Your task to perform on an android device: check the backup settings in the google photos Image 0: 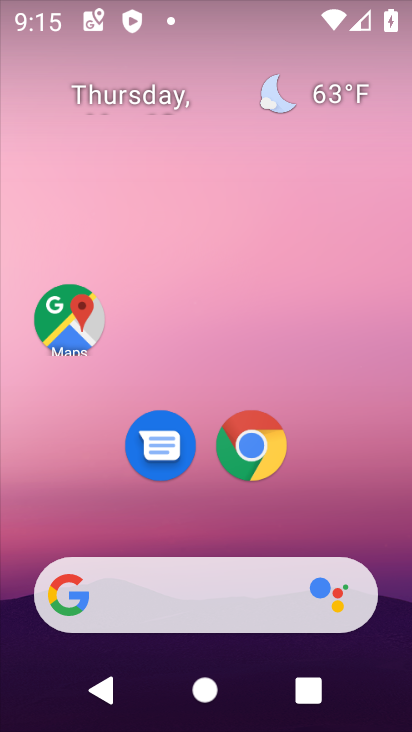
Step 0: drag from (202, 527) to (240, 183)
Your task to perform on an android device: check the backup settings in the google photos Image 1: 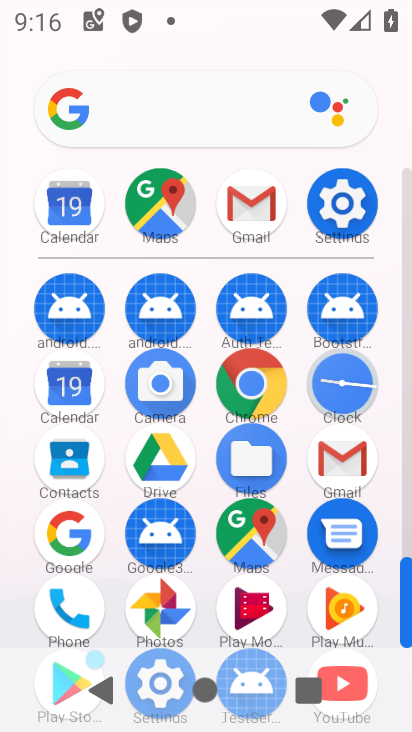
Step 1: click (151, 609)
Your task to perform on an android device: check the backup settings in the google photos Image 2: 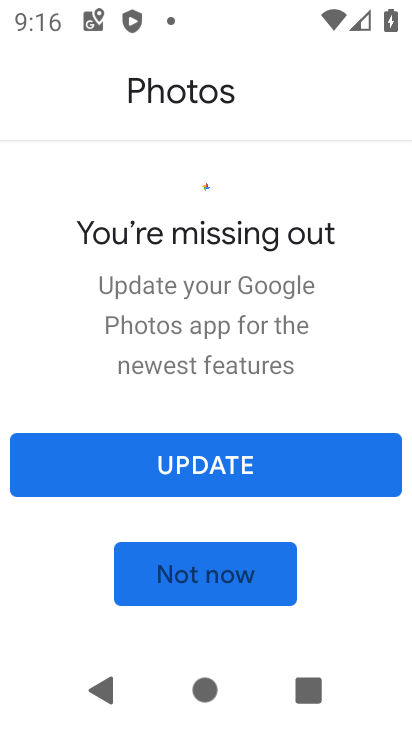
Step 2: click (315, 470)
Your task to perform on an android device: check the backup settings in the google photos Image 3: 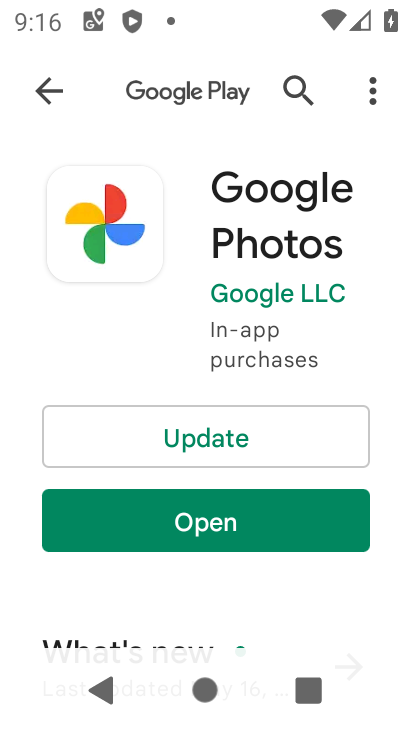
Step 3: click (256, 431)
Your task to perform on an android device: check the backup settings in the google photos Image 4: 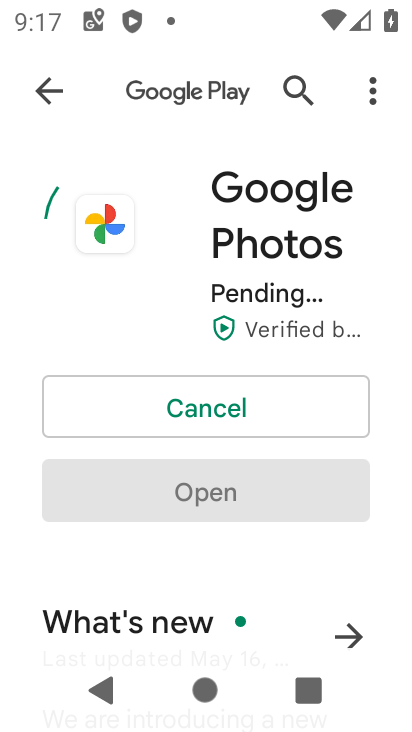
Step 4: click (205, 415)
Your task to perform on an android device: check the backup settings in the google photos Image 5: 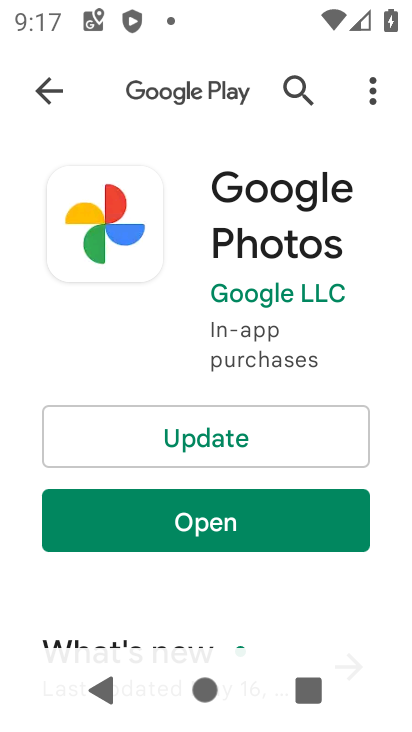
Step 5: click (208, 519)
Your task to perform on an android device: check the backup settings in the google photos Image 6: 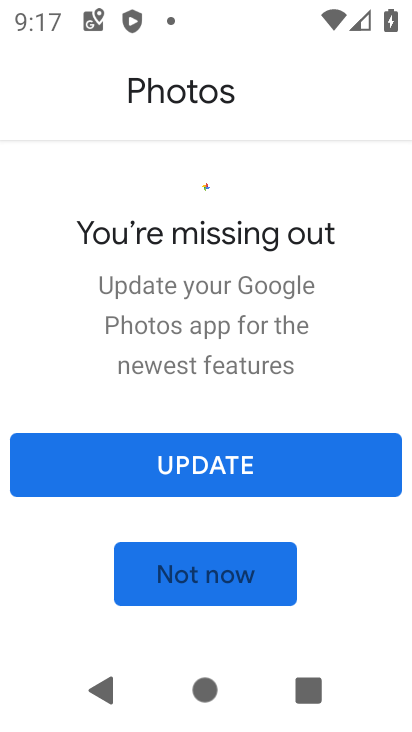
Step 6: click (212, 574)
Your task to perform on an android device: check the backup settings in the google photos Image 7: 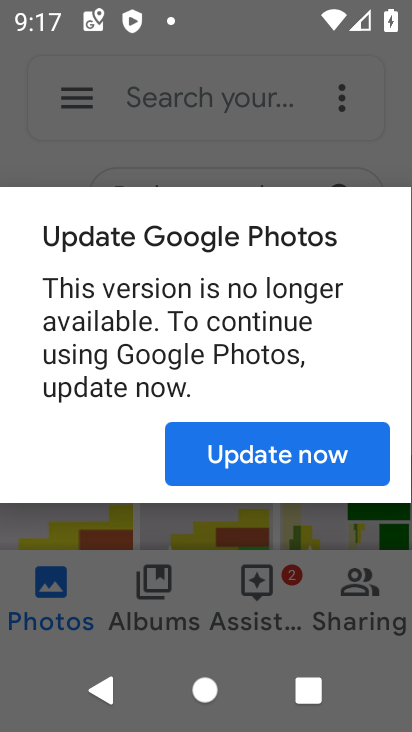
Step 7: click (260, 452)
Your task to perform on an android device: check the backup settings in the google photos Image 8: 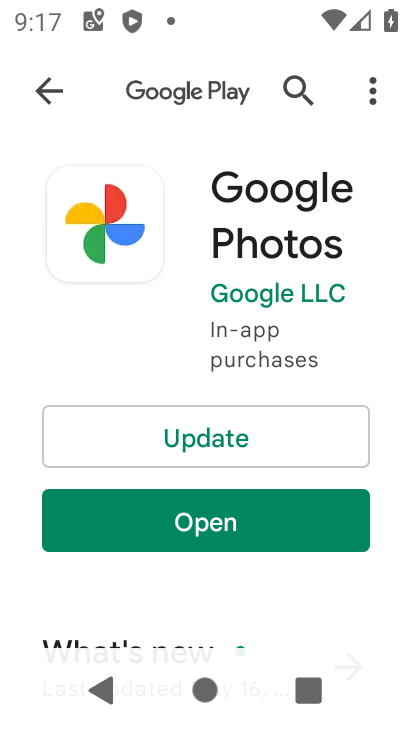
Step 8: press back button
Your task to perform on an android device: check the backup settings in the google photos Image 9: 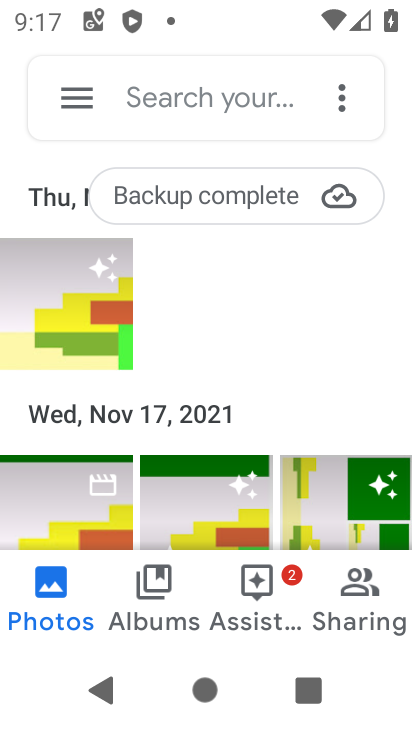
Step 9: click (81, 109)
Your task to perform on an android device: check the backup settings in the google photos Image 10: 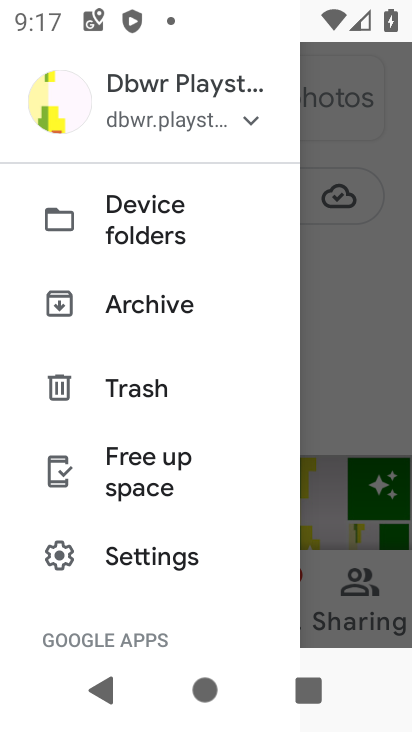
Step 10: drag from (141, 516) to (160, 435)
Your task to perform on an android device: check the backup settings in the google photos Image 11: 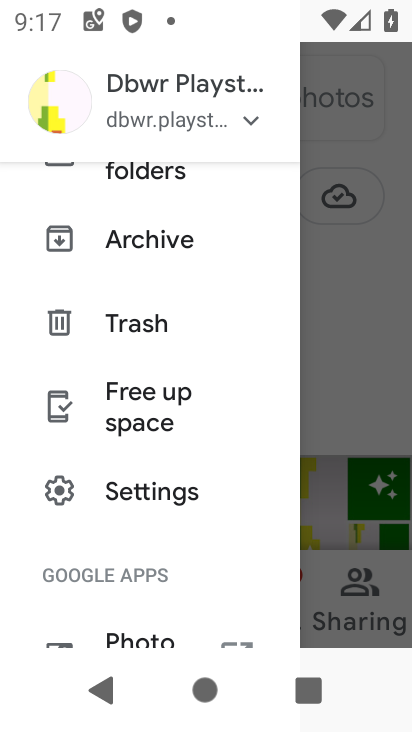
Step 11: click (136, 501)
Your task to perform on an android device: check the backup settings in the google photos Image 12: 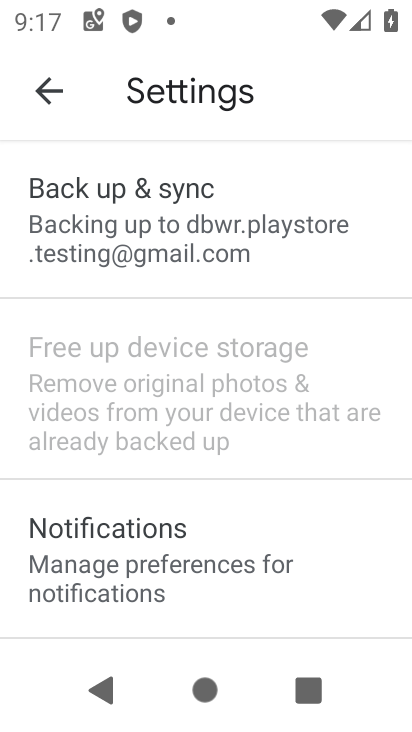
Step 12: click (193, 252)
Your task to perform on an android device: check the backup settings in the google photos Image 13: 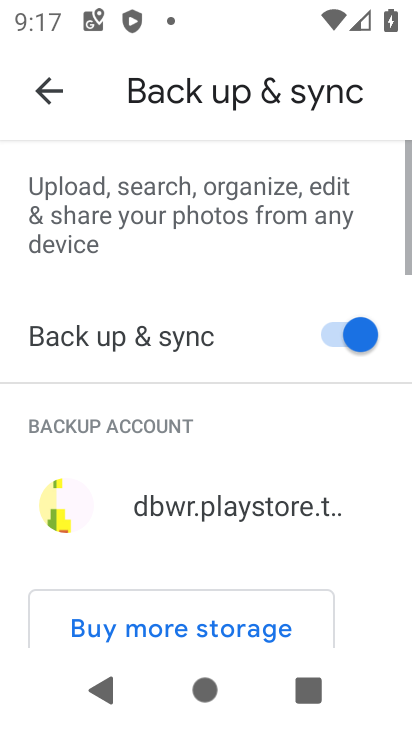
Step 13: task complete